Your task to perform on an android device: What's on my calendar today? Image 0: 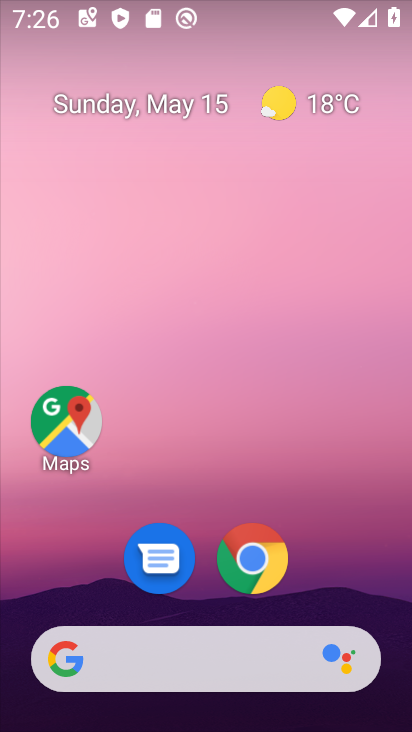
Step 0: drag from (330, 540) to (245, 117)
Your task to perform on an android device: What's on my calendar today? Image 1: 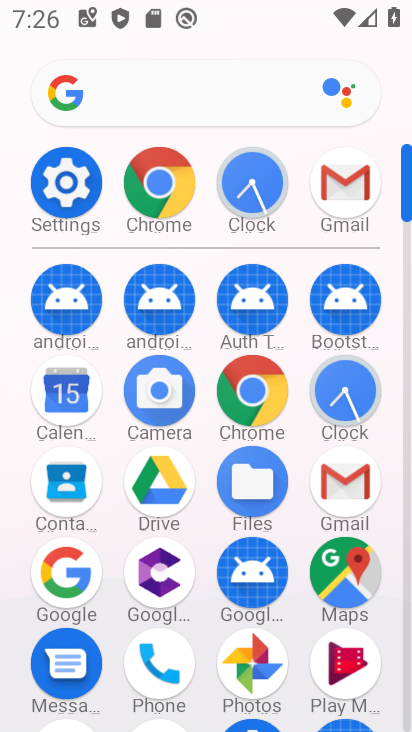
Step 1: click (63, 401)
Your task to perform on an android device: What's on my calendar today? Image 2: 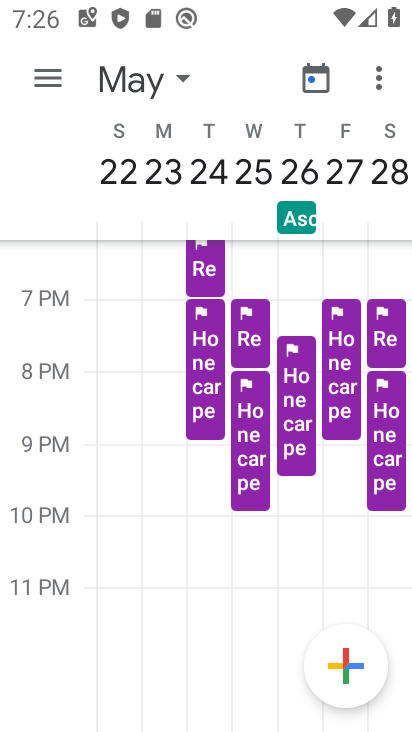
Step 2: click (43, 72)
Your task to perform on an android device: What's on my calendar today? Image 3: 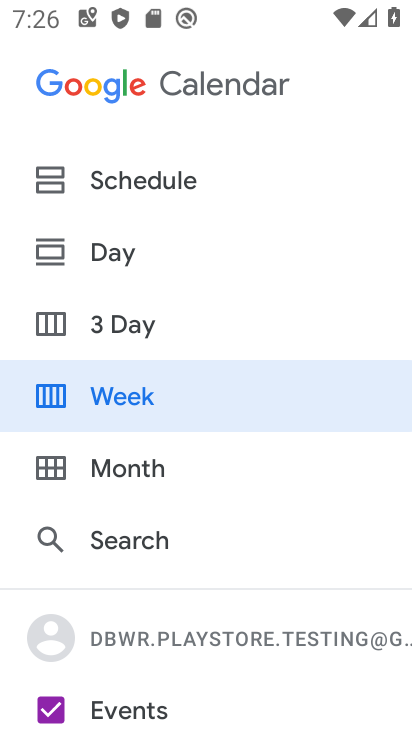
Step 3: click (106, 252)
Your task to perform on an android device: What's on my calendar today? Image 4: 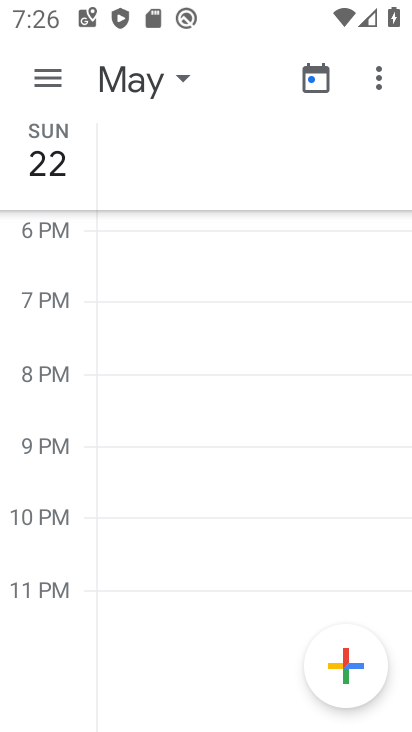
Step 4: task complete